Your task to perform on an android device: see tabs open on other devices in the chrome app Image 0: 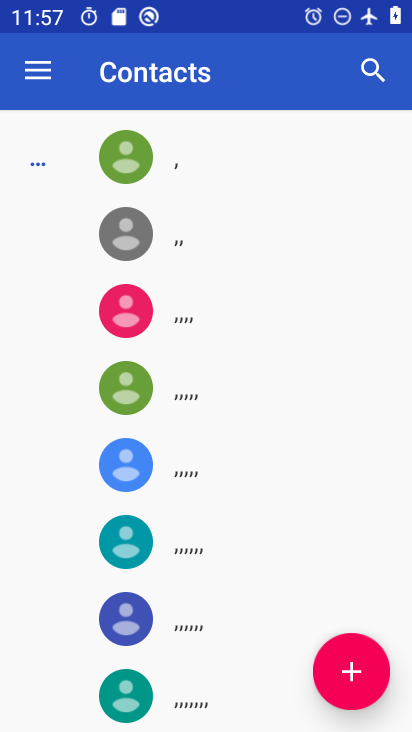
Step 0: press home button
Your task to perform on an android device: see tabs open on other devices in the chrome app Image 1: 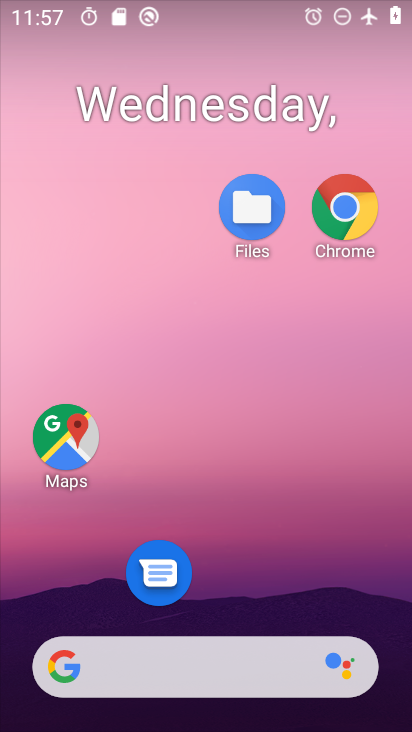
Step 1: click (350, 237)
Your task to perform on an android device: see tabs open on other devices in the chrome app Image 2: 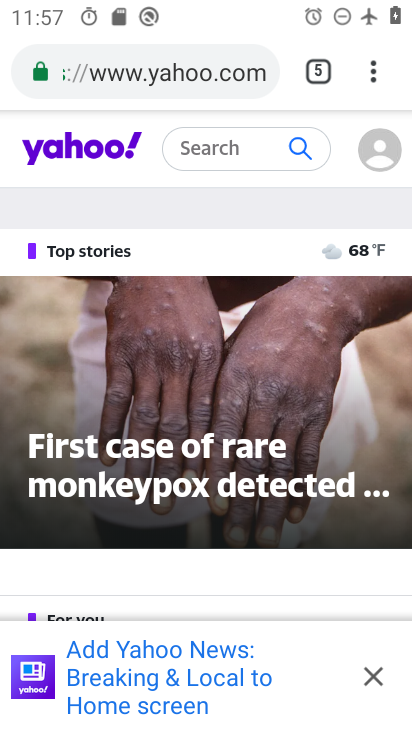
Step 2: task complete